Your task to perform on an android device: Go to settings Image 0: 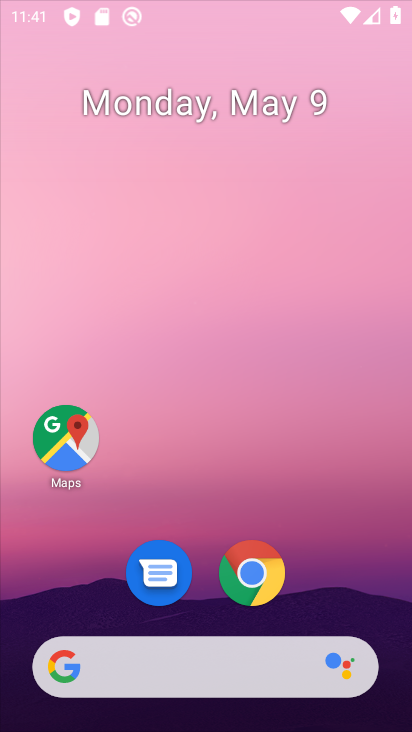
Step 0: click (318, 171)
Your task to perform on an android device: Go to settings Image 1: 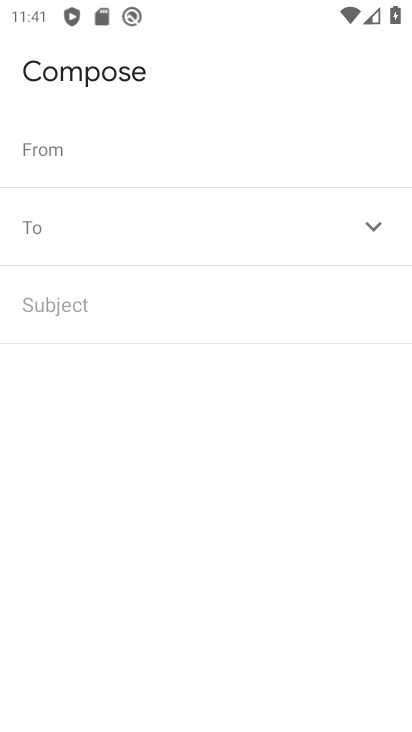
Step 1: drag from (190, 618) to (239, 295)
Your task to perform on an android device: Go to settings Image 2: 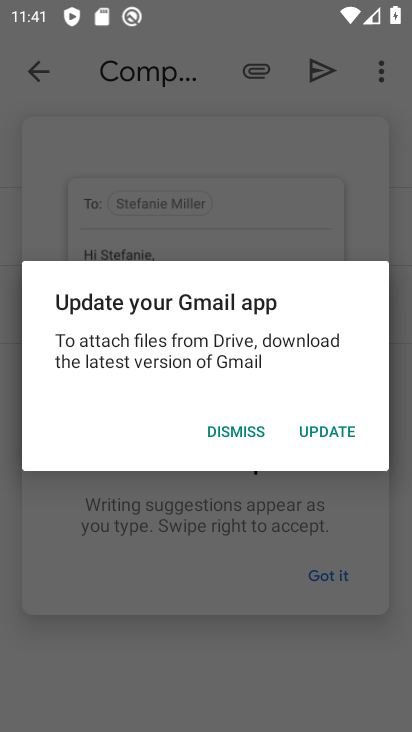
Step 2: press home button
Your task to perform on an android device: Go to settings Image 3: 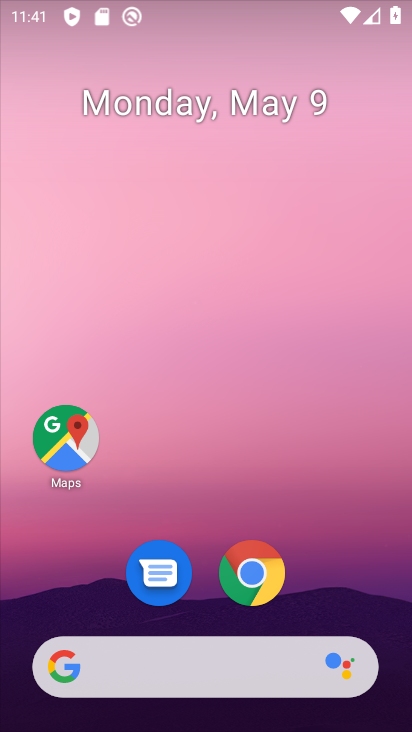
Step 3: drag from (260, 580) to (360, 128)
Your task to perform on an android device: Go to settings Image 4: 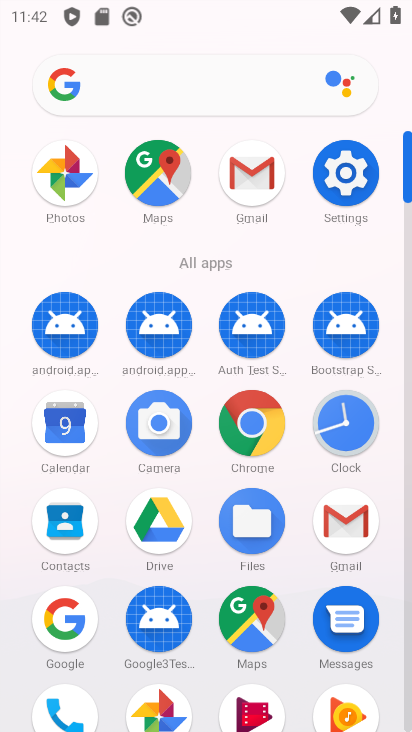
Step 4: drag from (217, 679) to (224, 579)
Your task to perform on an android device: Go to settings Image 5: 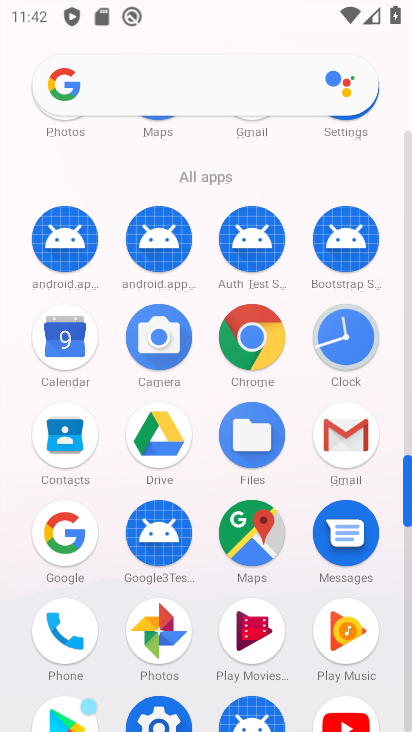
Step 5: click (172, 703)
Your task to perform on an android device: Go to settings Image 6: 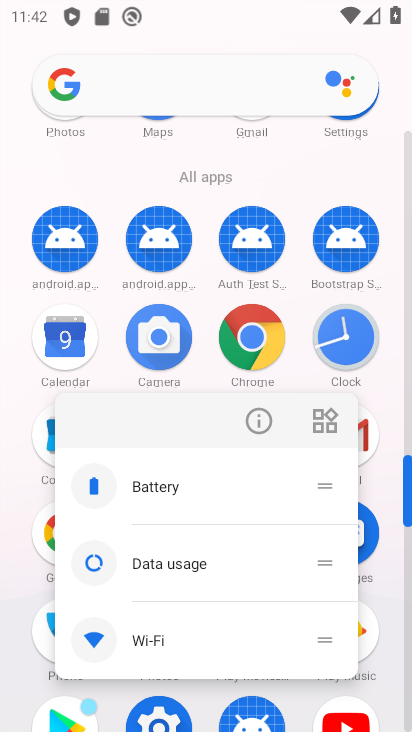
Step 6: click (263, 413)
Your task to perform on an android device: Go to settings Image 7: 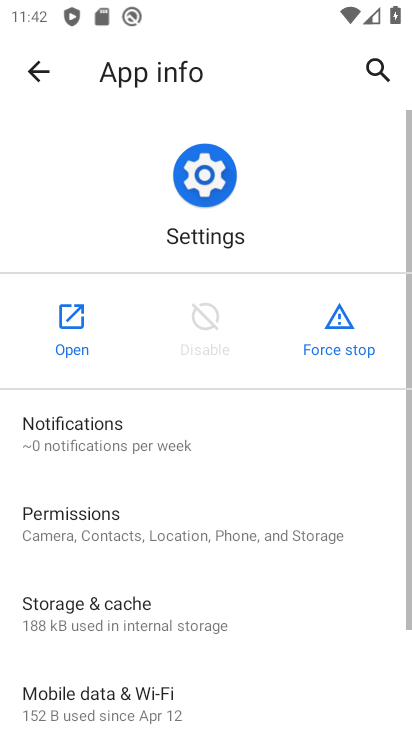
Step 7: click (87, 326)
Your task to perform on an android device: Go to settings Image 8: 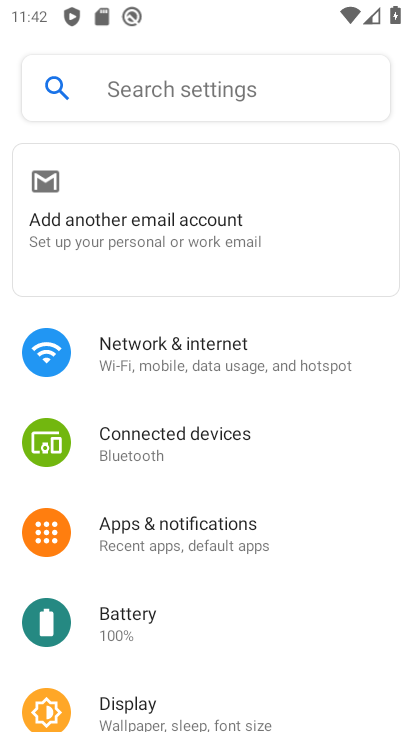
Step 8: task complete